Your task to perform on an android device: Go to Reddit.com Image 0: 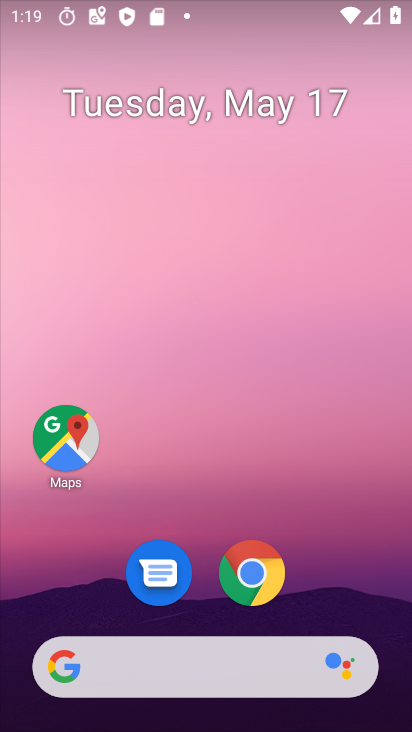
Step 0: click (243, 669)
Your task to perform on an android device: Go to Reddit.com Image 1: 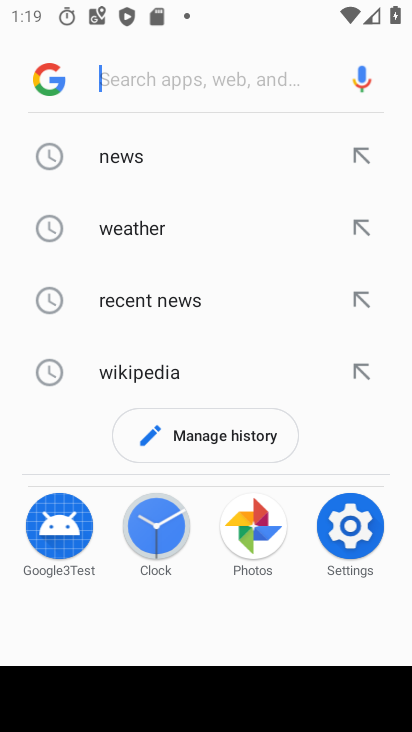
Step 1: type "reddit.com"
Your task to perform on an android device: Go to Reddit.com Image 2: 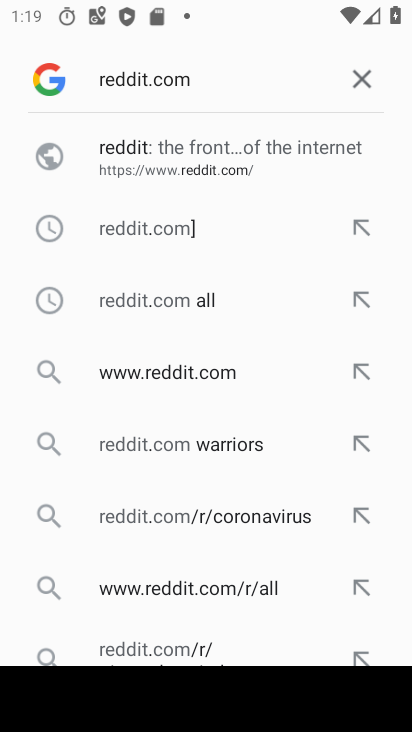
Step 2: click (332, 158)
Your task to perform on an android device: Go to Reddit.com Image 3: 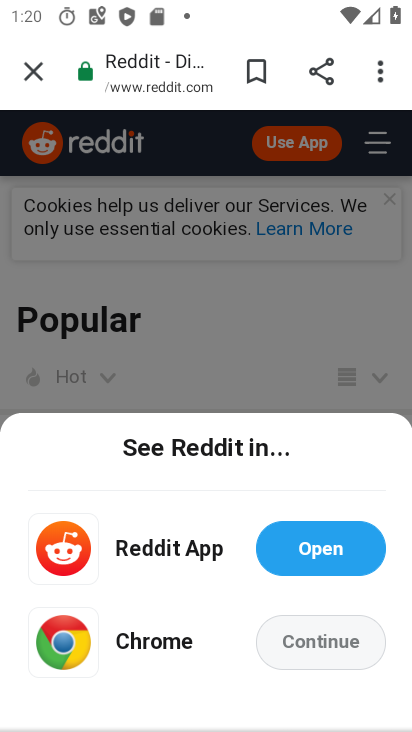
Step 3: task complete